Your task to perform on an android device: find snoozed emails in the gmail app Image 0: 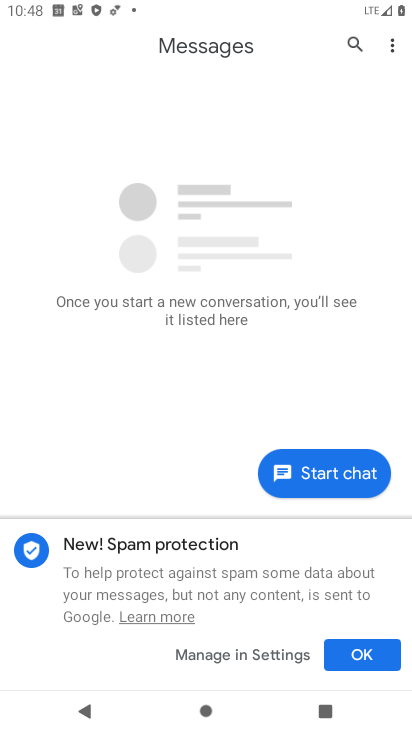
Step 0: press home button
Your task to perform on an android device: find snoozed emails in the gmail app Image 1: 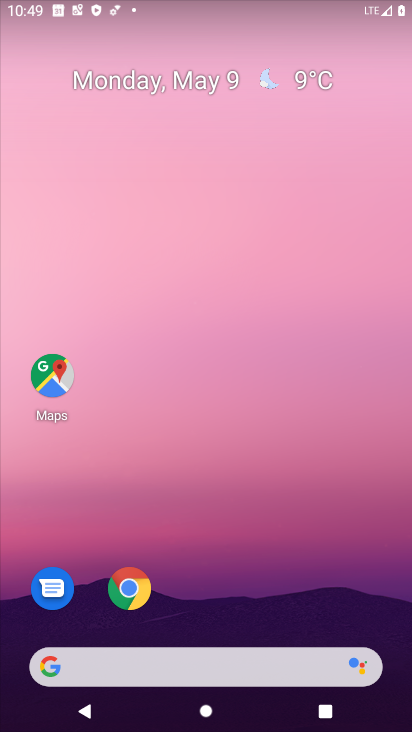
Step 1: drag from (166, 670) to (238, 190)
Your task to perform on an android device: find snoozed emails in the gmail app Image 2: 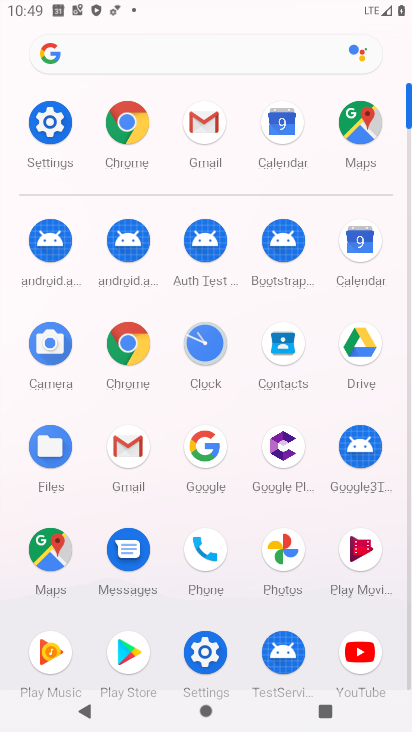
Step 2: click (196, 120)
Your task to perform on an android device: find snoozed emails in the gmail app Image 3: 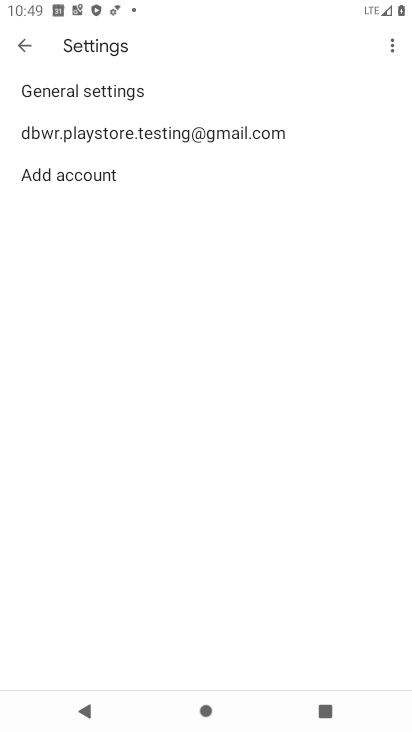
Step 3: click (25, 50)
Your task to perform on an android device: find snoozed emails in the gmail app Image 4: 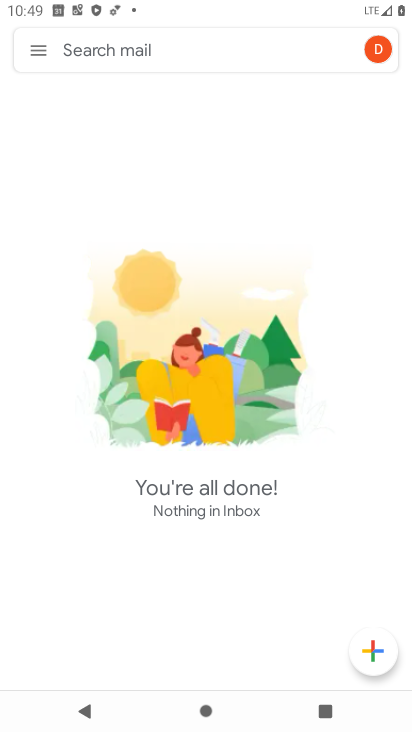
Step 4: click (36, 49)
Your task to perform on an android device: find snoozed emails in the gmail app Image 5: 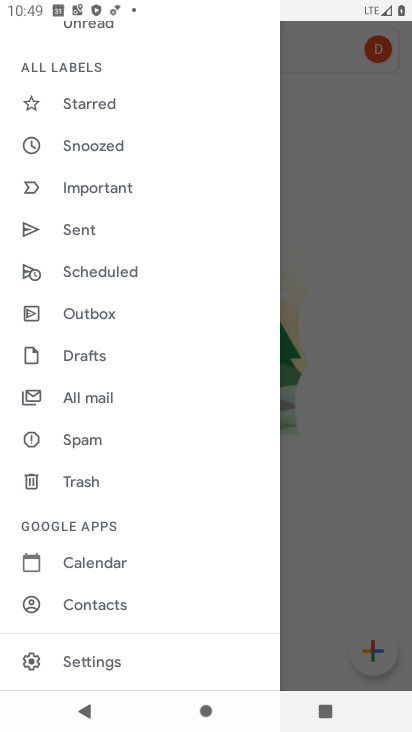
Step 5: click (95, 148)
Your task to perform on an android device: find snoozed emails in the gmail app Image 6: 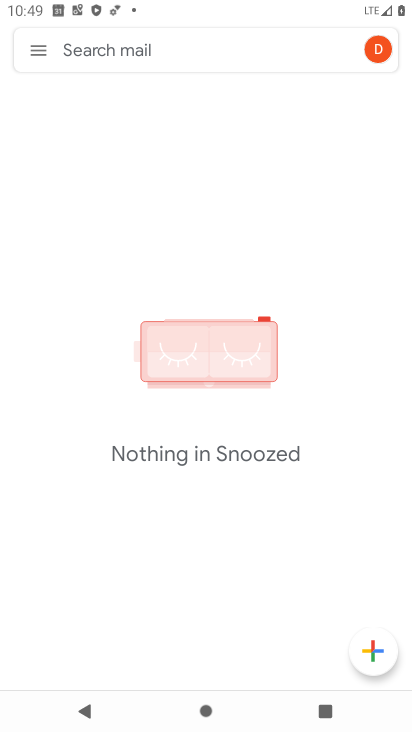
Step 6: task complete